Your task to perform on an android device: snooze an email in the gmail app Image 0: 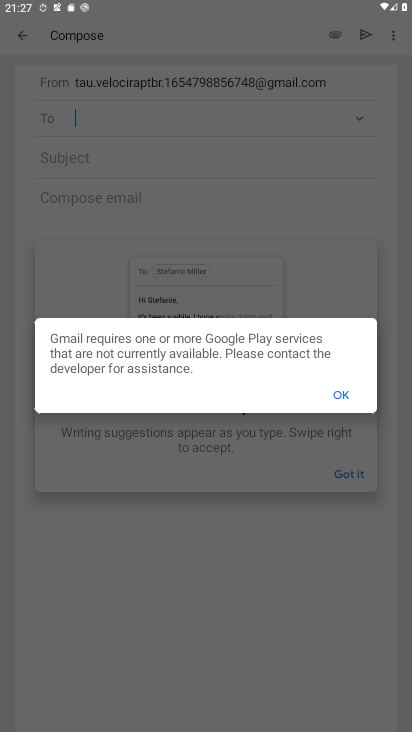
Step 0: press home button
Your task to perform on an android device: snooze an email in the gmail app Image 1: 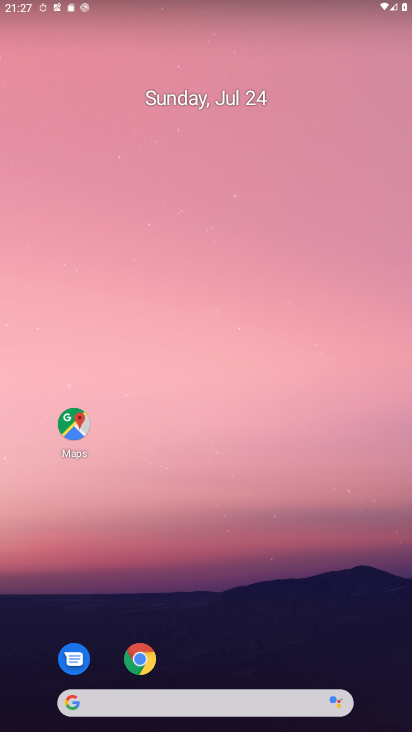
Step 1: drag from (221, 720) to (229, 290)
Your task to perform on an android device: snooze an email in the gmail app Image 2: 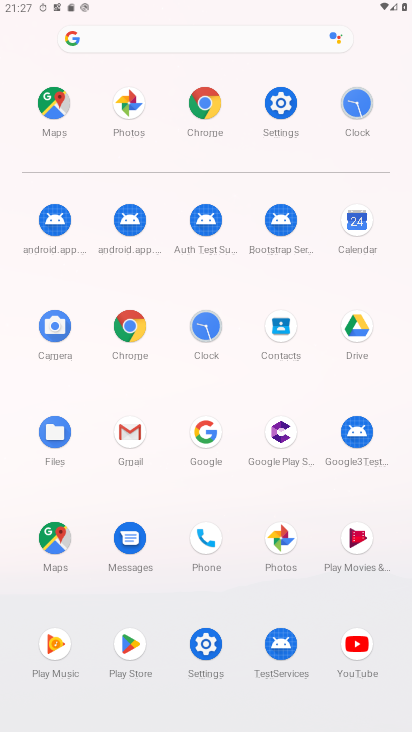
Step 2: click (138, 432)
Your task to perform on an android device: snooze an email in the gmail app Image 3: 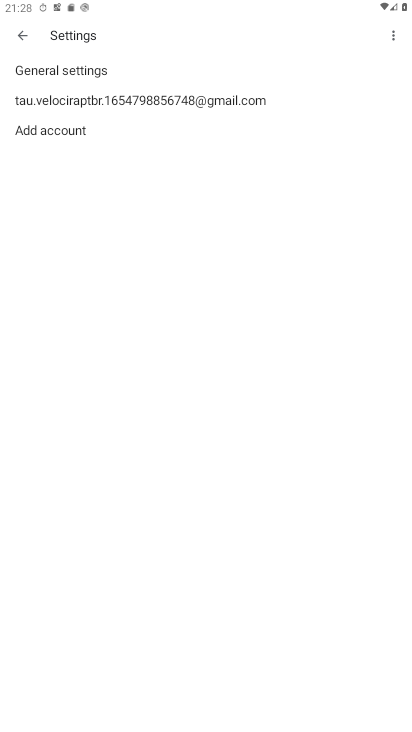
Step 3: click (25, 36)
Your task to perform on an android device: snooze an email in the gmail app Image 4: 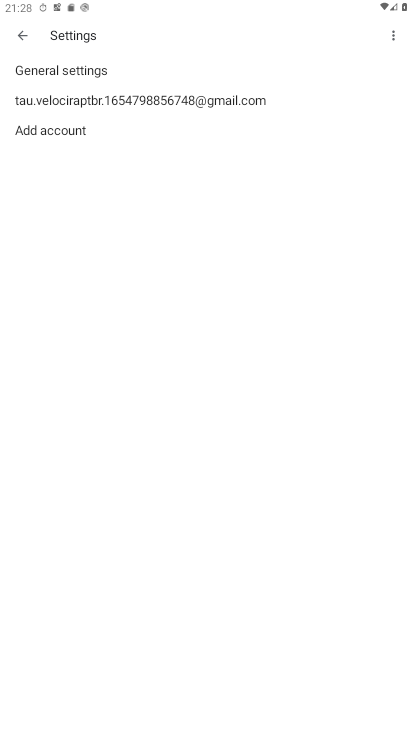
Step 4: click (24, 32)
Your task to perform on an android device: snooze an email in the gmail app Image 5: 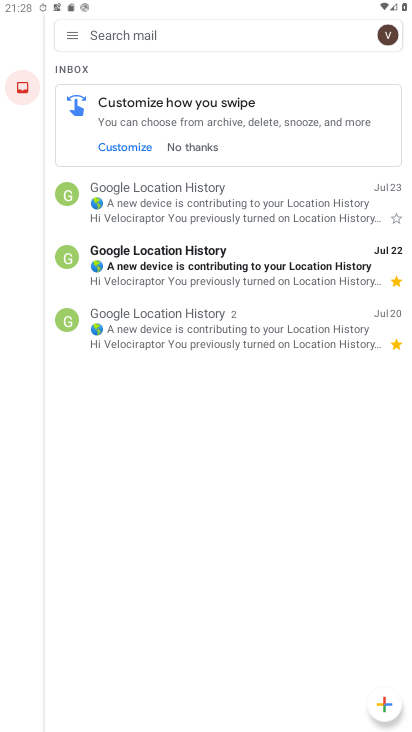
Step 5: click (237, 208)
Your task to perform on an android device: snooze an email in the gmail app Image 6: 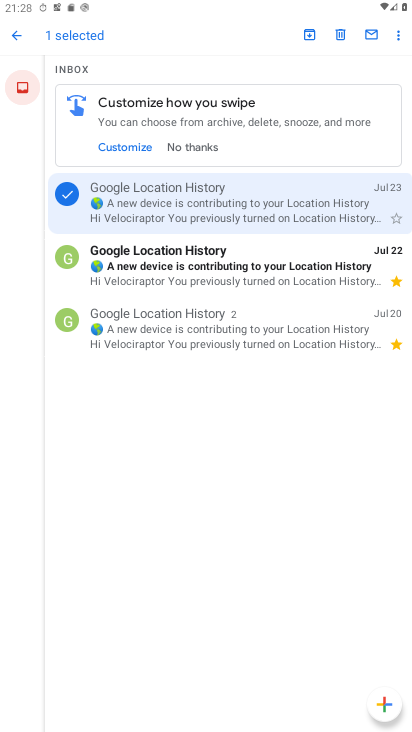
Step 6: click (398, 38)
Your task to perform on an android device: snooze an email in the gmail app Image 7: 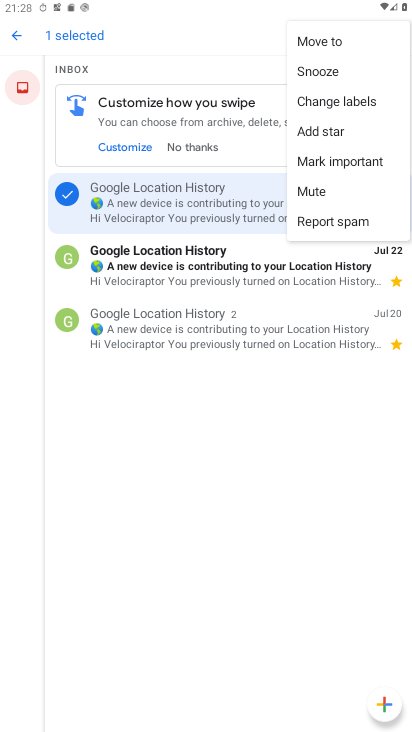
Step 7: click (322, 69)
Your task to perform on an android device: snooze an email in the gmail app Image 8: 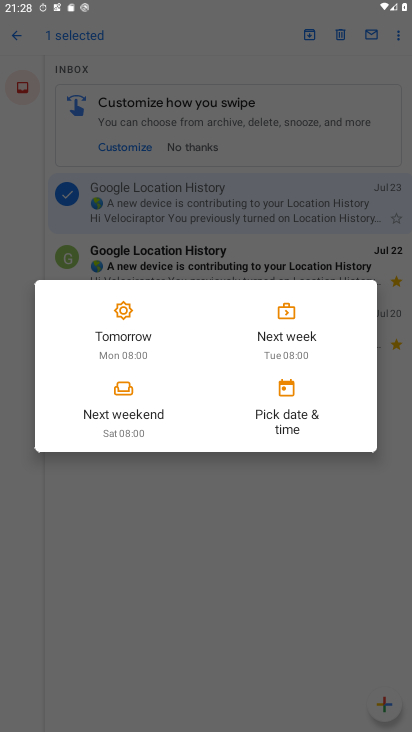
Step 8: click (293, 330)
Your task to perform on an android device: snooze an email in the gmail app Image 9: 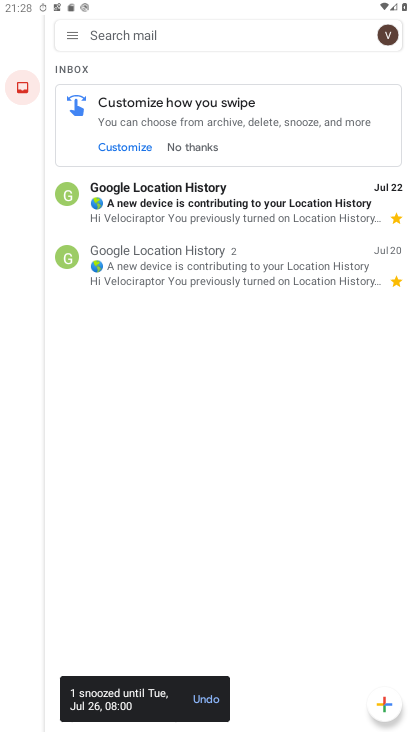
Step 9: task complete